Your task to perform on an android device: Clear all items from cart on amazon. Image 0: 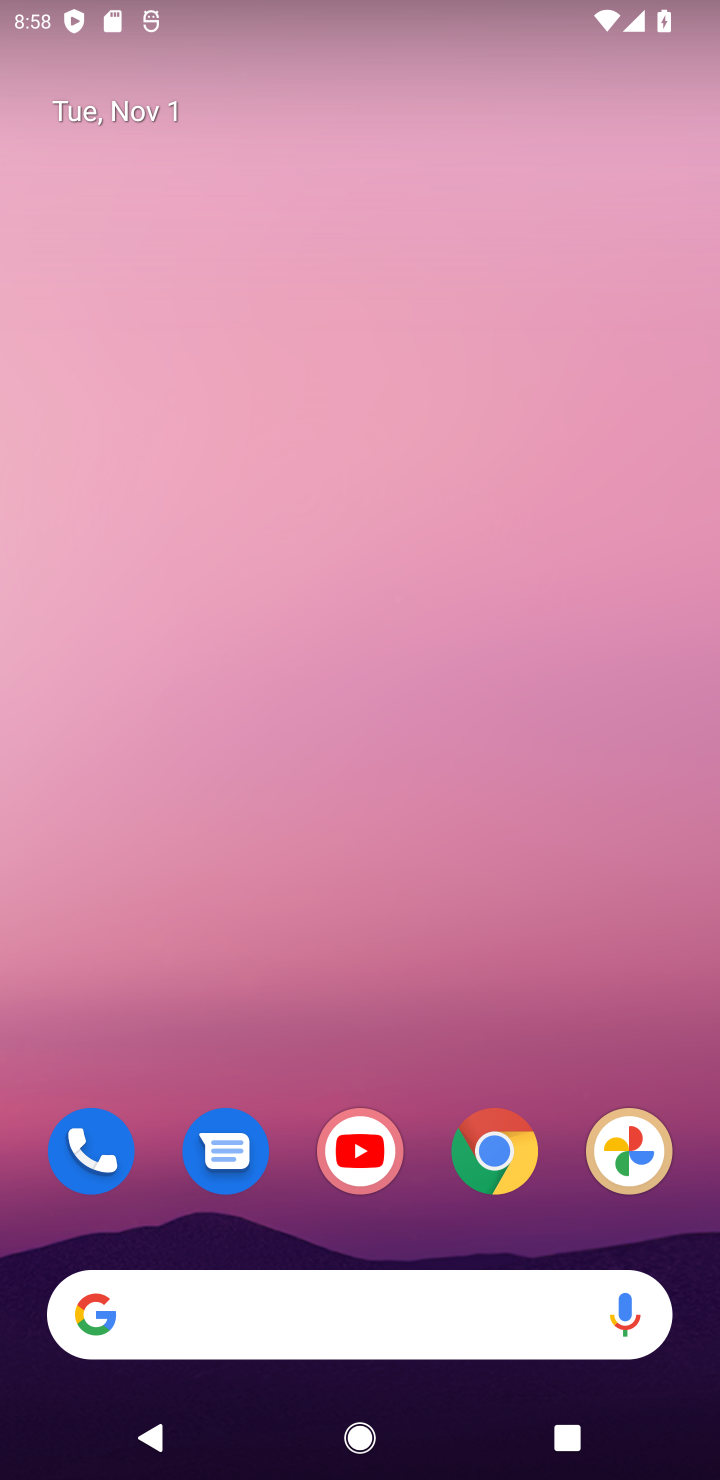
Step 0: click (494, 1152)
Your task to perform on an android device: Clear all items from cart on amazon. Image 1: 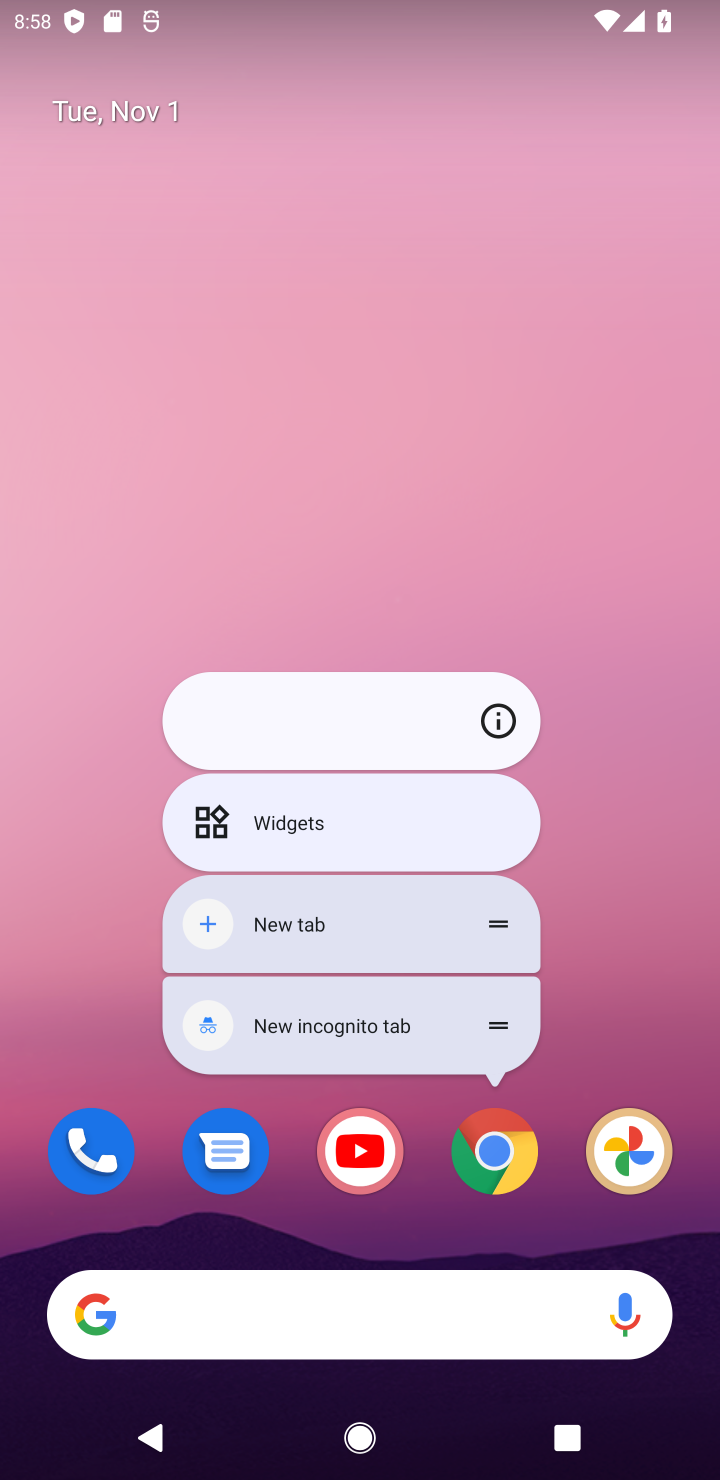
Step 1: click (495, 1128)
Your task to perform on an android device: Clear all items from cart on amazon. Image 2: 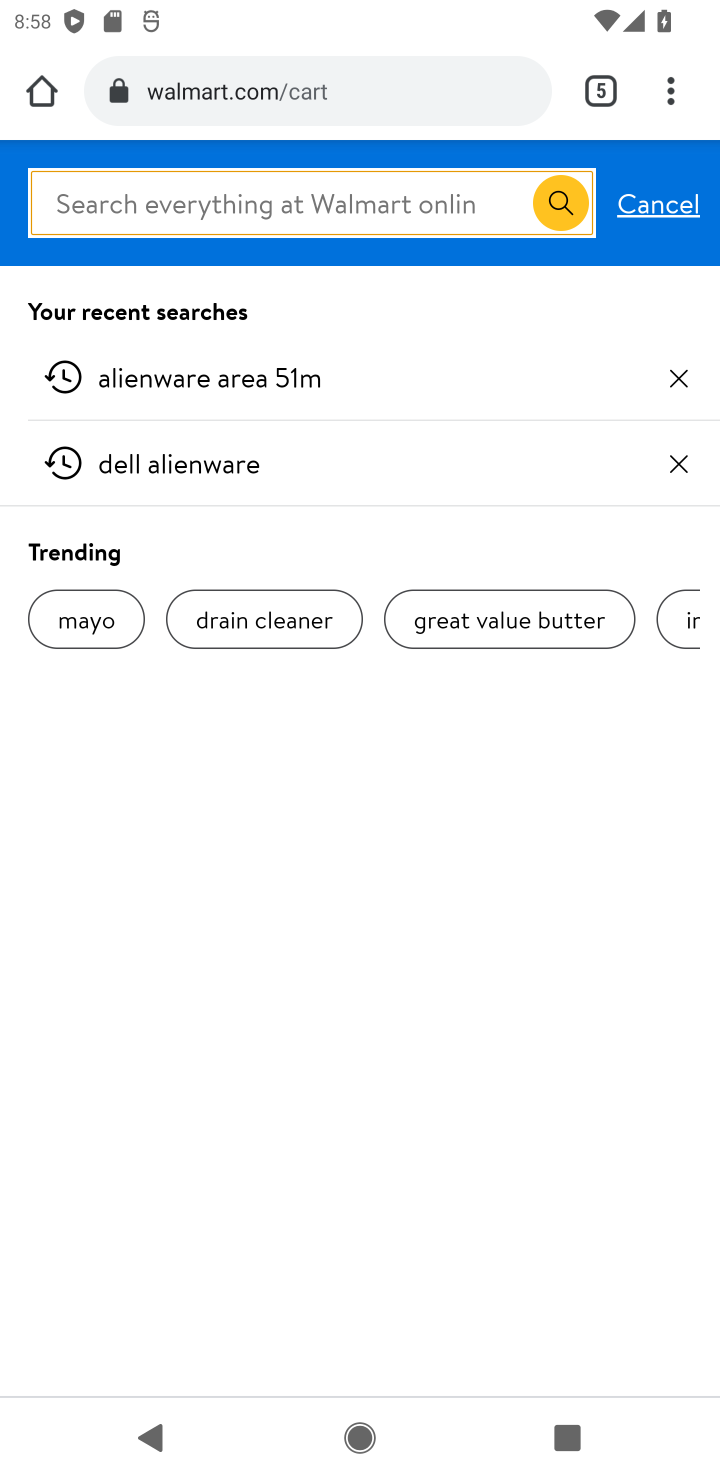
Step 2: click (601, 94)
Your task to perform on an android device: Clear all items from cart on amazon. Image 3: 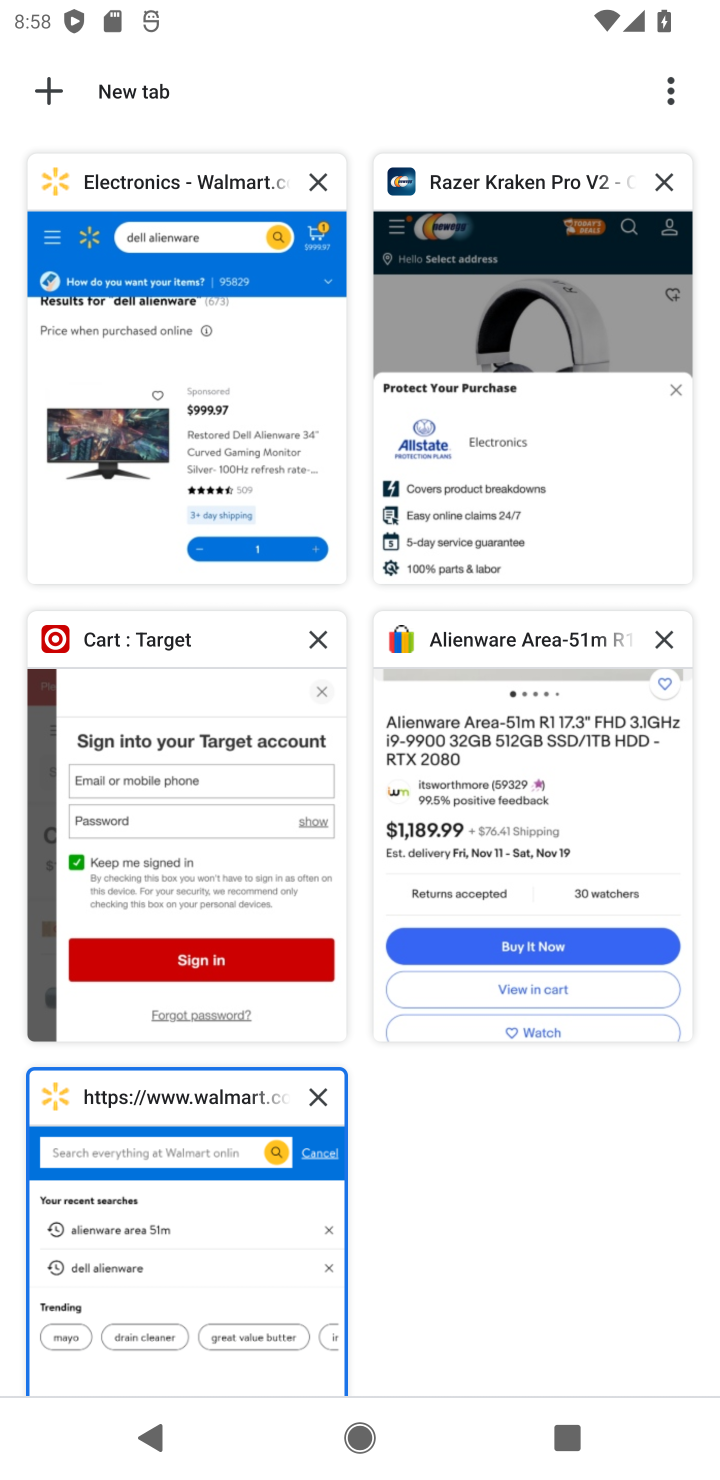
Step 3: click (46, 85)
Your task to perform on an android device: Clear all items from cart on amazon. Image 4: 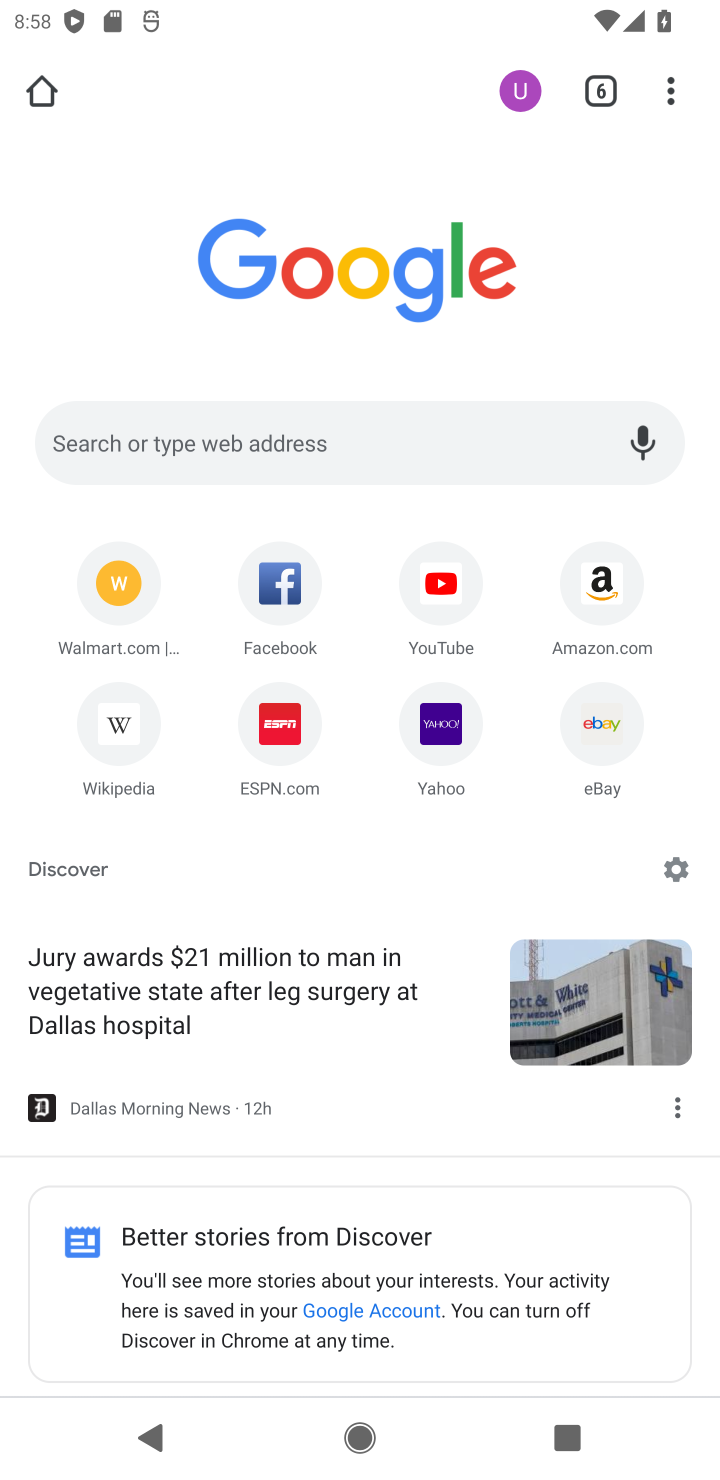
Step 4: click (601, 595)
Your task to perform on an android device: Clear all items from cart on amazon. Image 5: 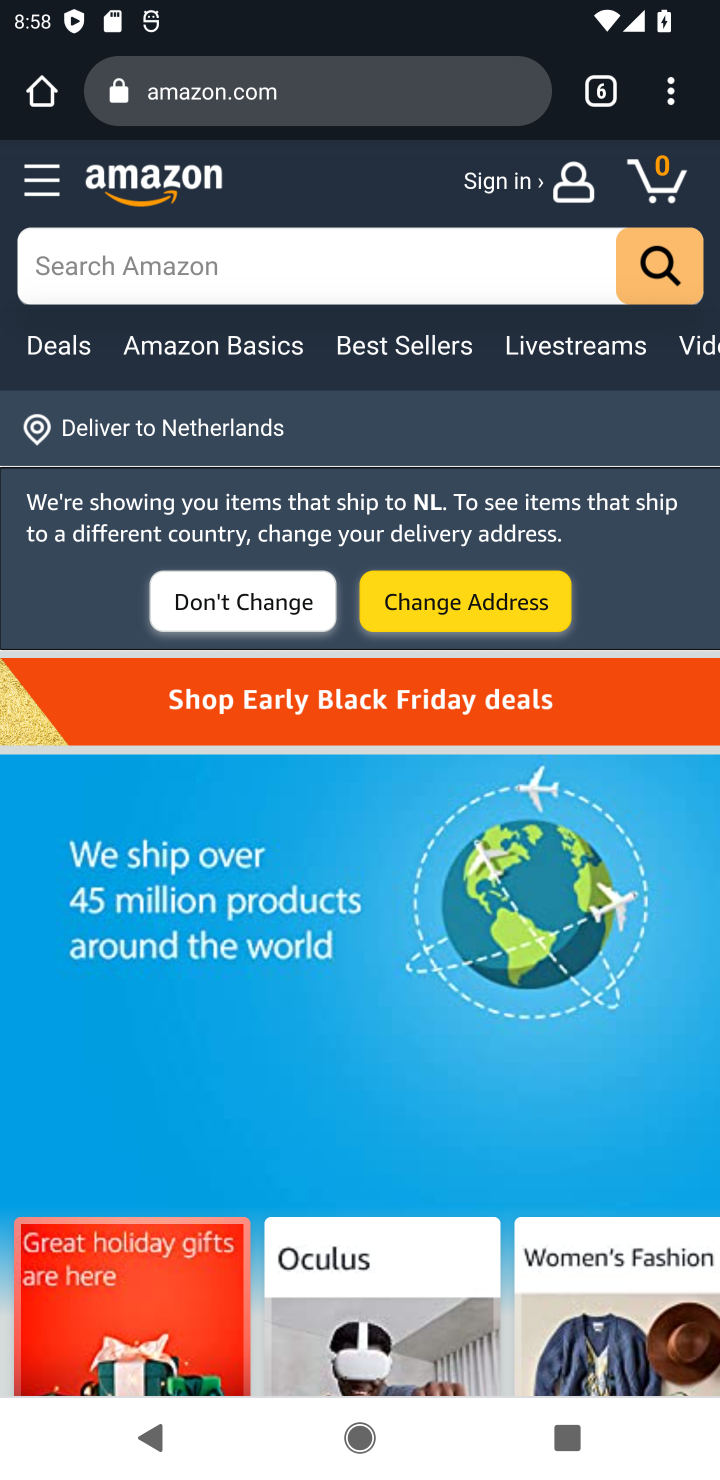
Step 5: task complete